Your task to perform on an android device: Go to Android settings Image 0: 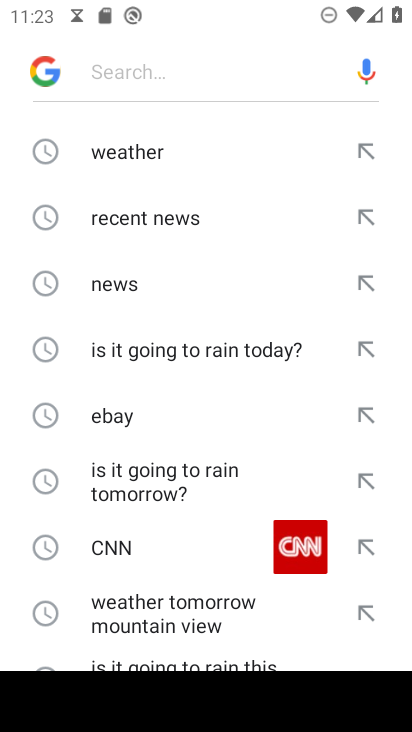
Step 0: press home button
Your task to perform on an android device: Go to Android settings Image 1: 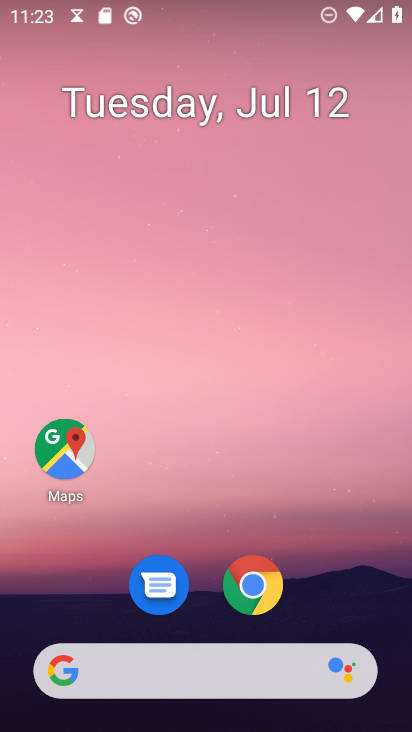
Step 1: drag from (208, 668) to (287, 150)
Your task to perform on an android device: Go to Android settings Image 2: 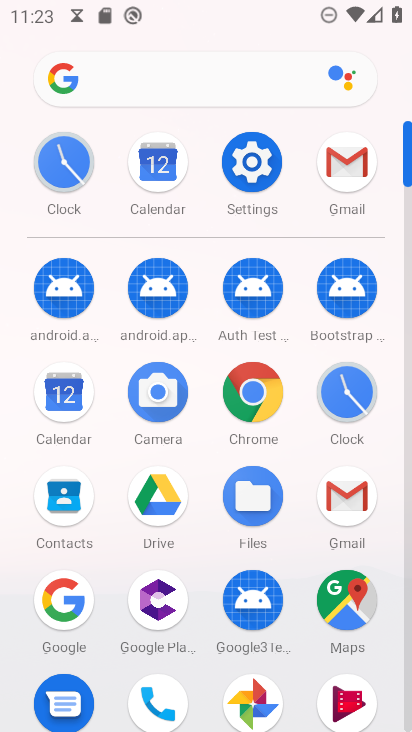
Step 2: click (245, 174)
Your task to perform on an android device: Go to Android settings Image 3: 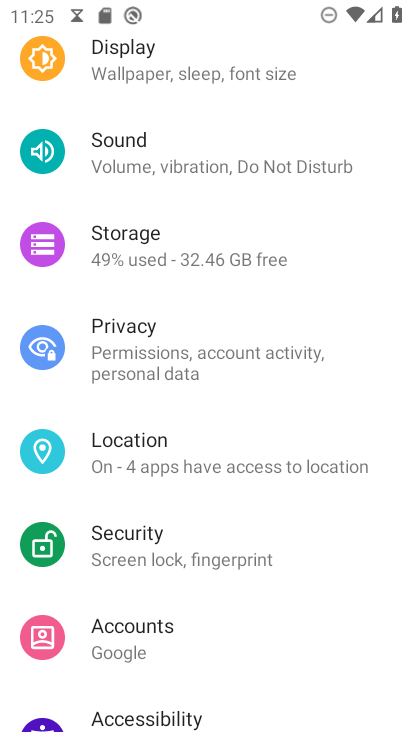
Step 3: task complete